Your task to perform on an android device: Clear the cart on target.com. Image 0: 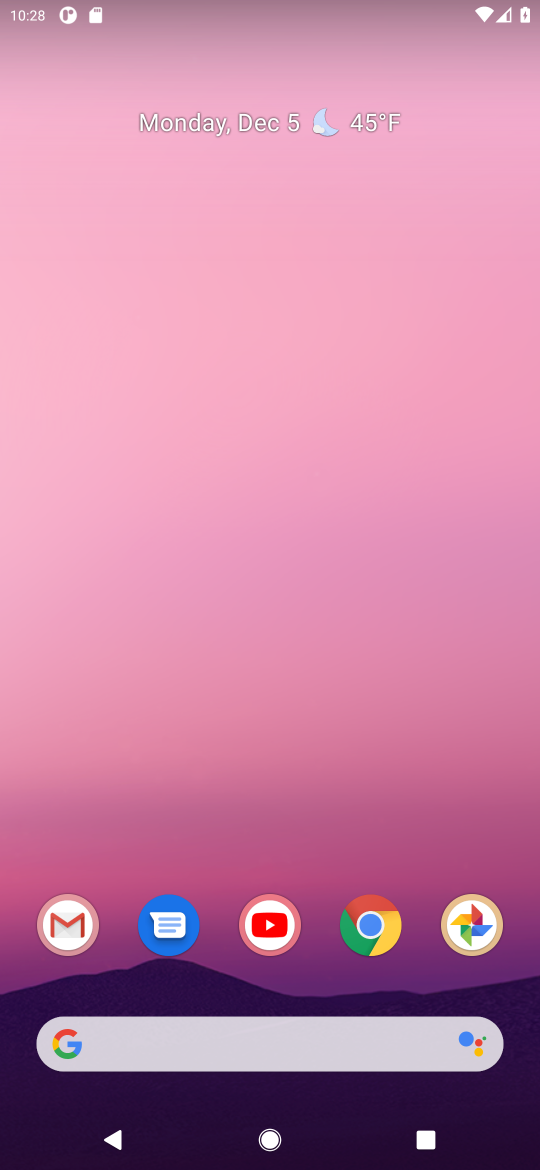
Step 0: click (365, 931)
Your task to perform on an android device: Clear the cart on target.com. Image 1: 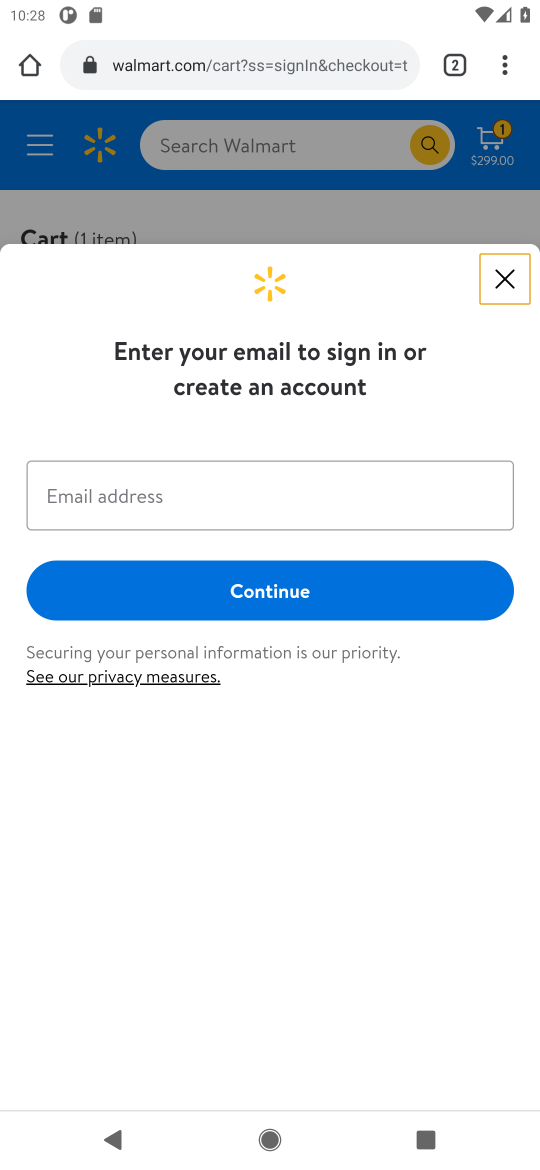
Step 1: click (197, 65)
Your task to perform on an android device: Clear the cart on target.com. Image 2: 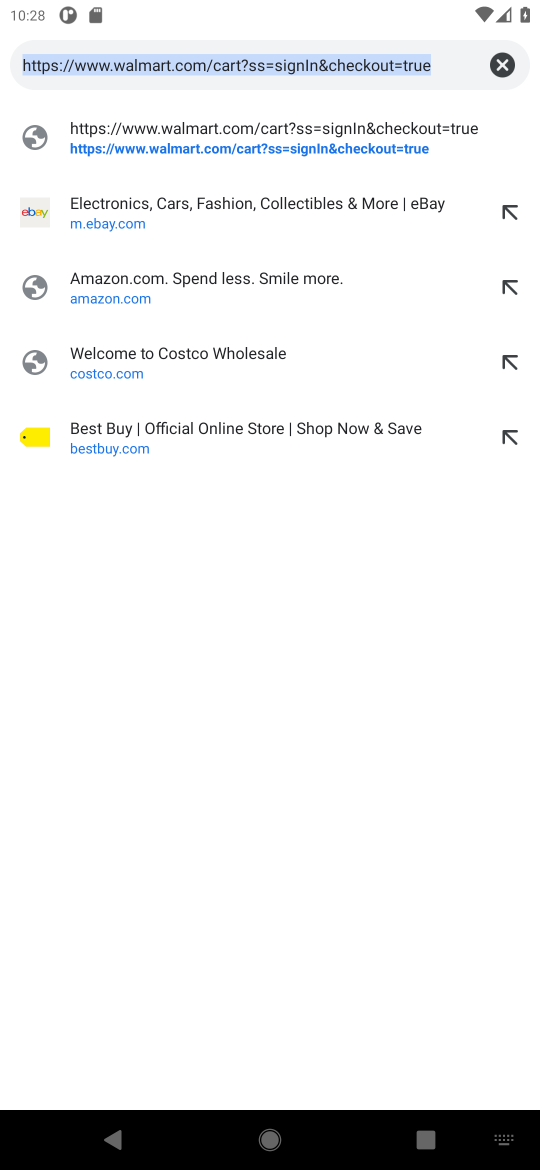
Step 2: type "target.com"
Your task to perform on an android device: Clear the cart on target.com. Image 3: 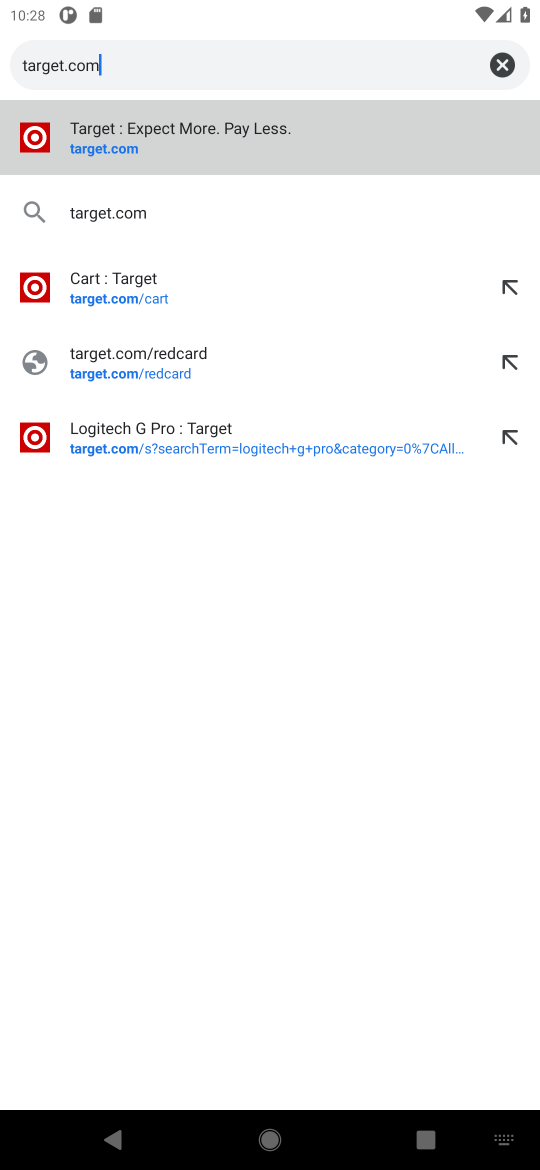
Step 3: click (84, 150)
Your task to perform on an android device: Clear the cart on target.com. Image 4: 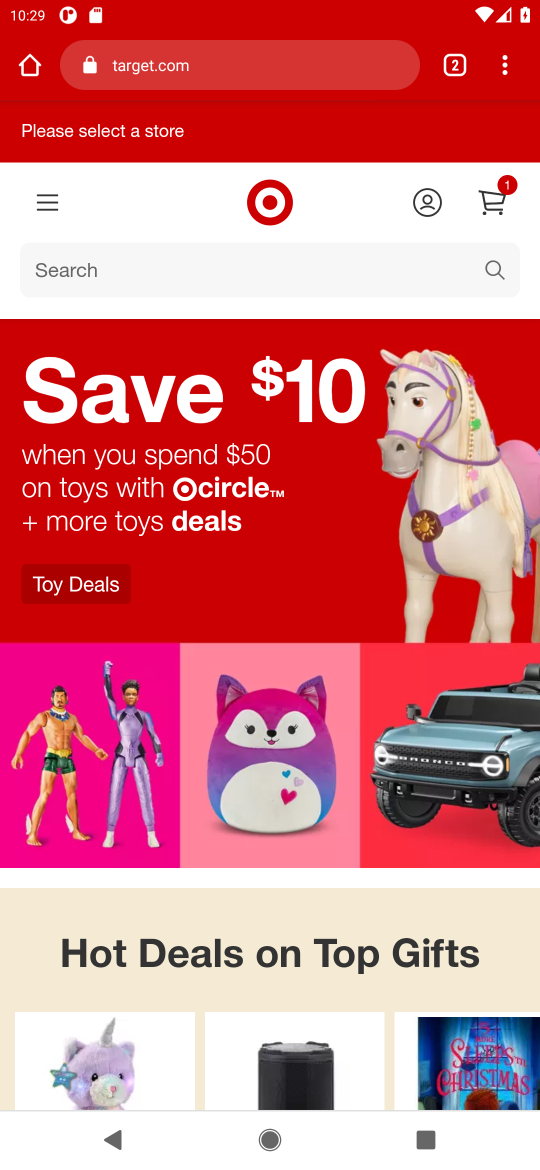
Step 4: click (493, 210)
Your task to perform on an android device: Clear the cart on target.com. Image 5: 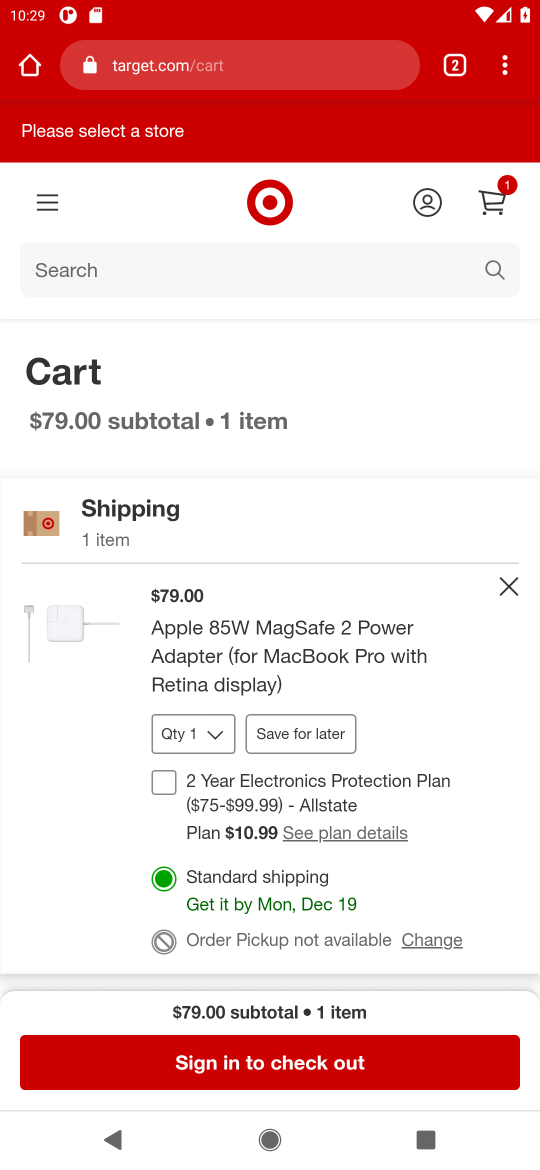
Step 5: click (505, 580)
Your task to perform on an android device: Clear the cart on target.com. Image 6: 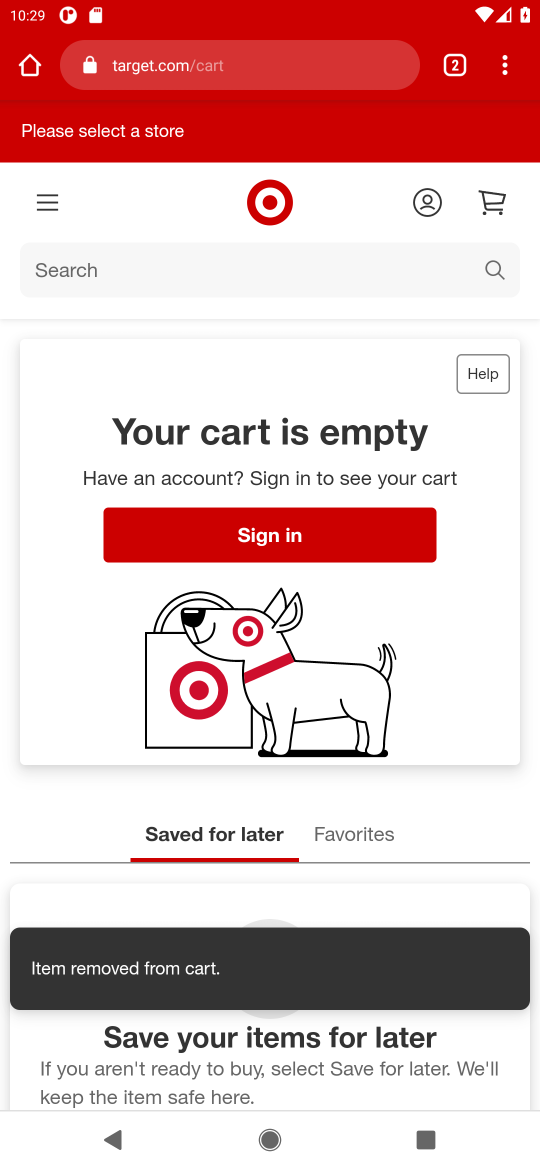
Step 6: task complete